Your task to perform on an android device: Do I have any events today? Image 0: 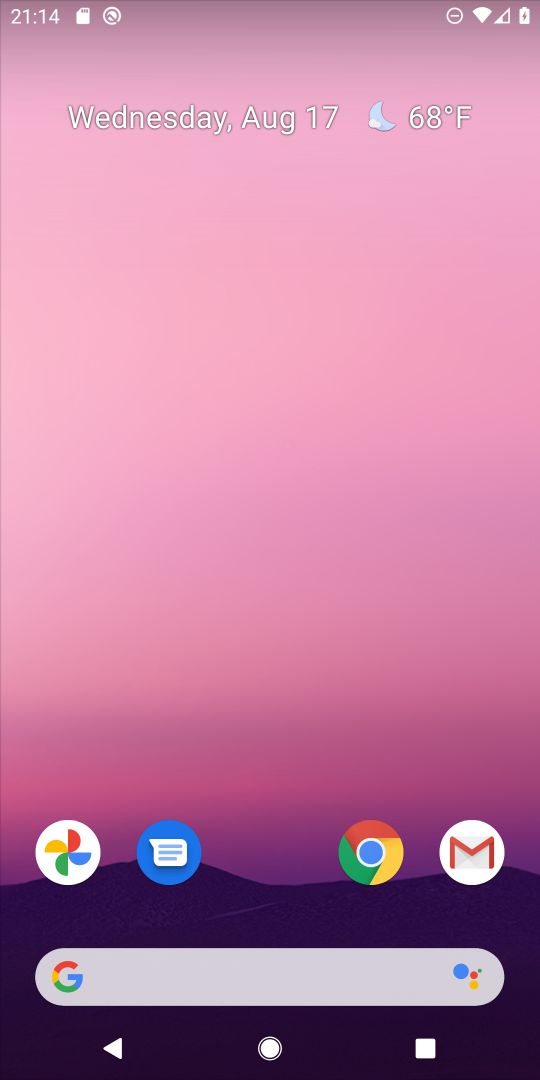
Step 0: press home button
Your task to perform on an android device: Do I have any events today? Image 1: 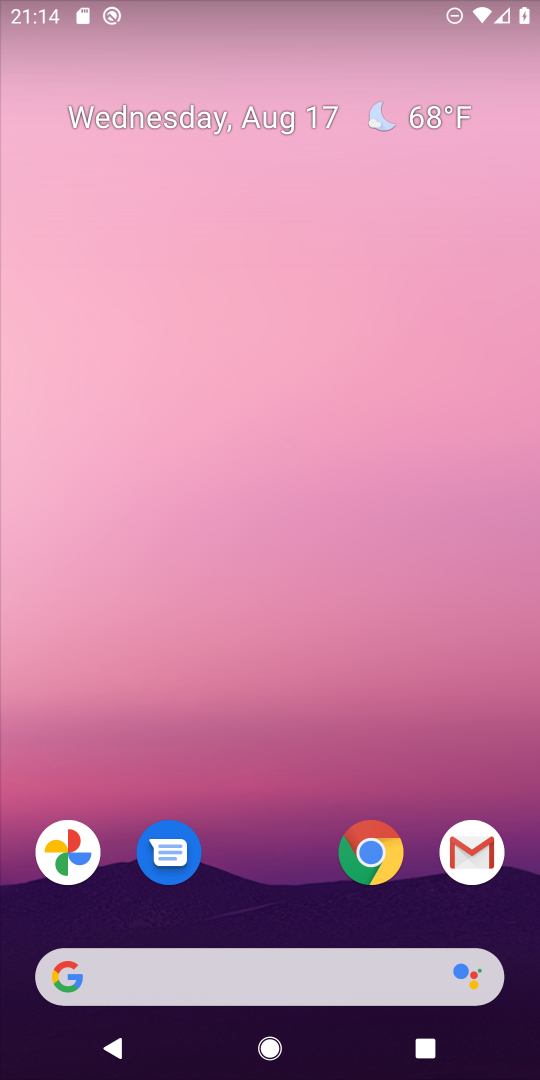
Step 1: drag from (279, 869) to (260, 233)
Your task to perform on an android device: Do I have any events today? Image 2: 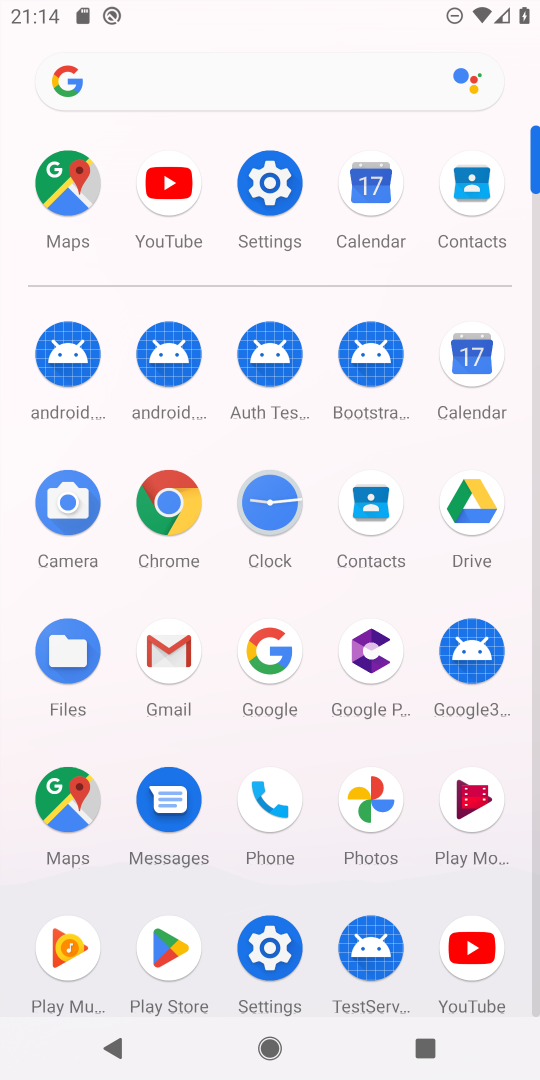
Step 2: click (472, 341)
Your task to perform on an android device: Do I have any events today? Image 3: 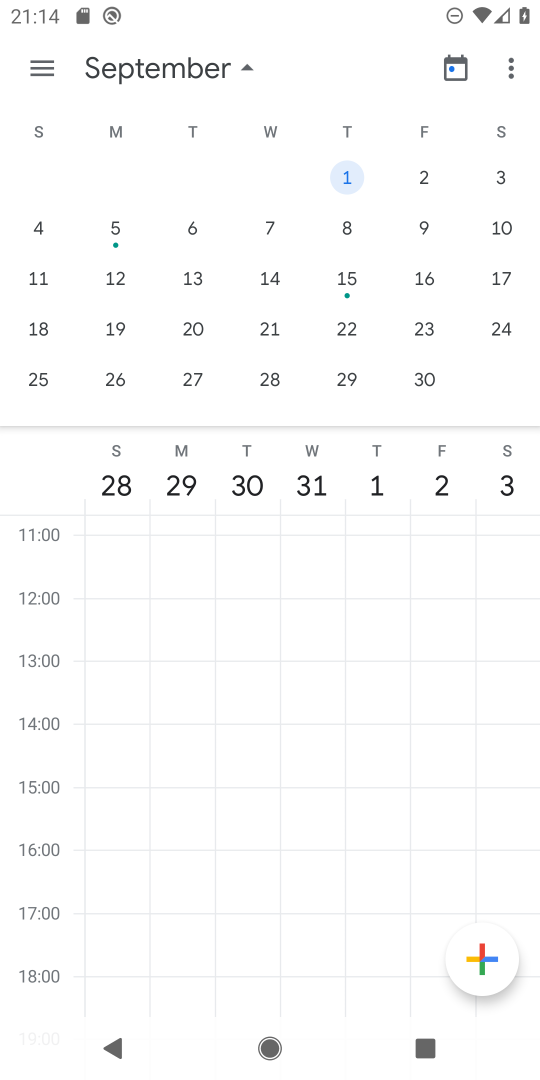
Step 3: drag from (55, 233) to (478, 238)
Your task to perform on an android device: Do I have any events today? Image 4: 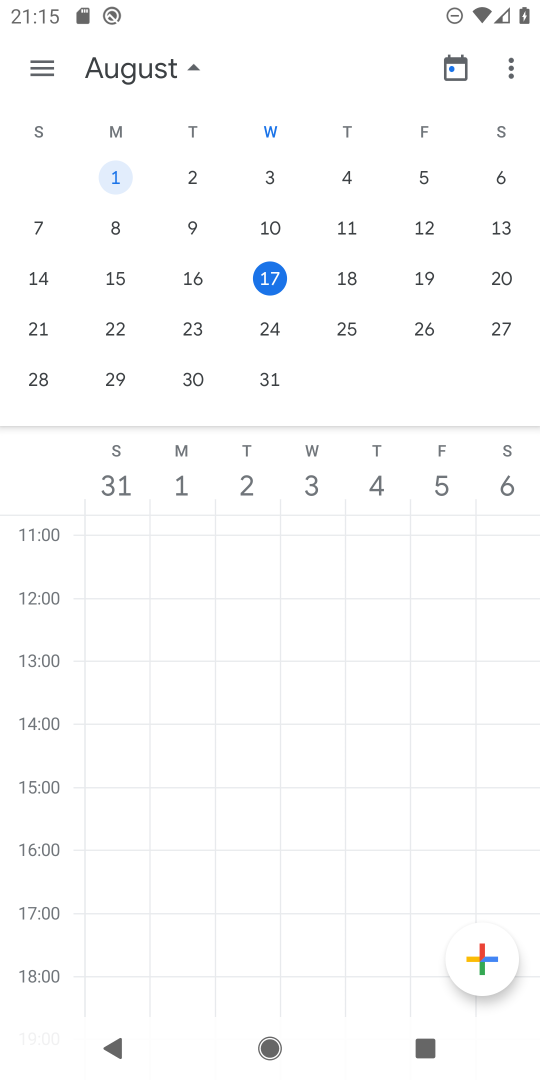
Step 4: click (272, 270)
Your task to perform on an android device: Do I have any events today? Image 5: 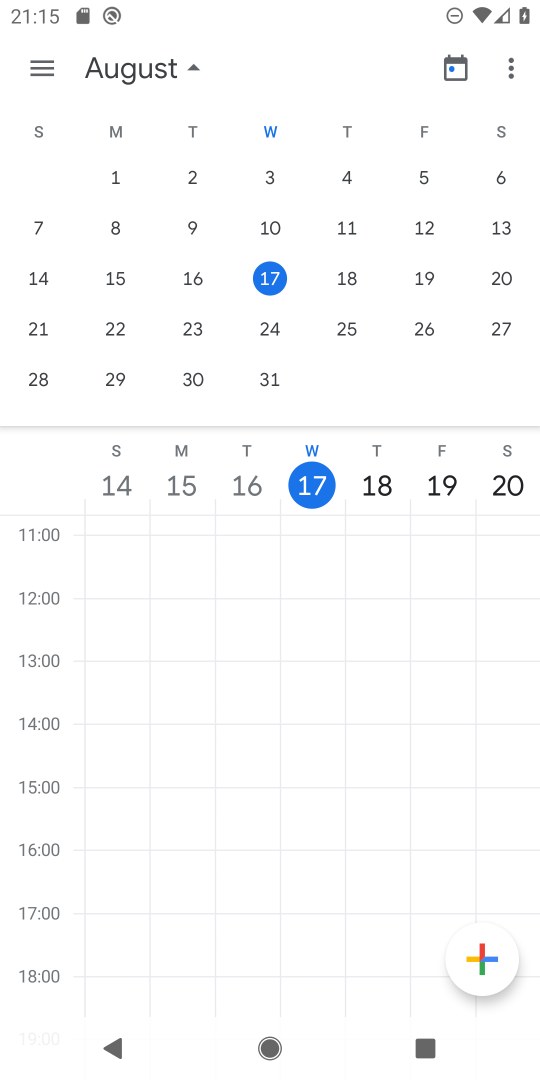
Step 5: click (41, 71)
Your task to perform on an android device: Do I have any events today? Image 6: 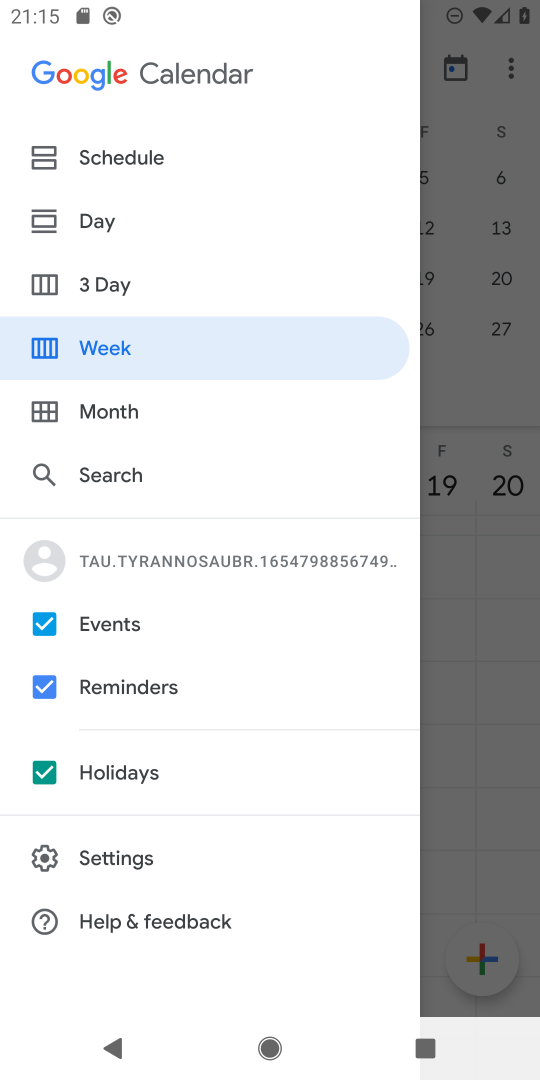
Step 6: click (104, 215)
Your task to perform on an android device: Do I have any events today? Image 7: 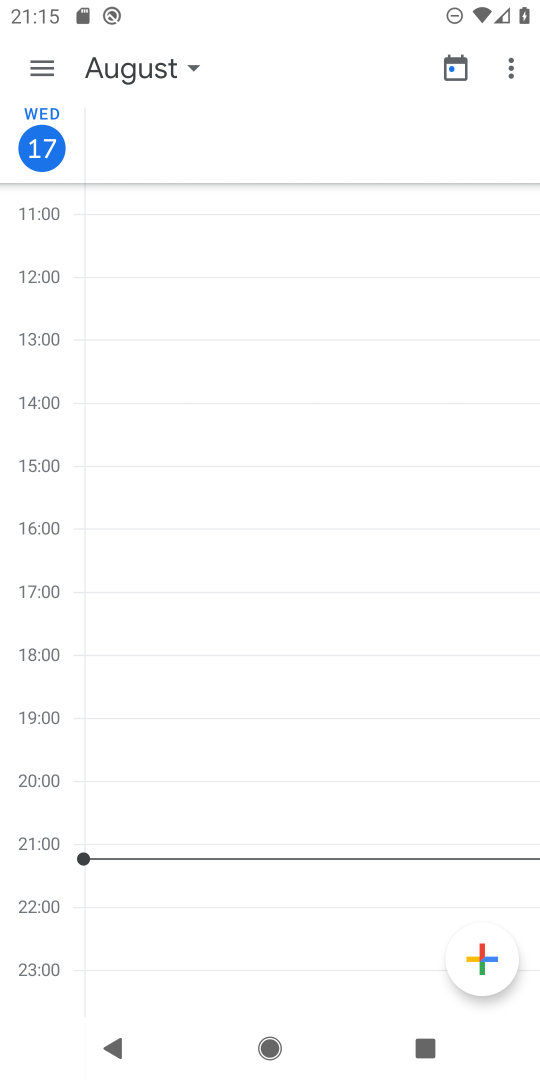
Step 7: task complete